Your task to perform on an android device: When is my next meeting? Image 0: 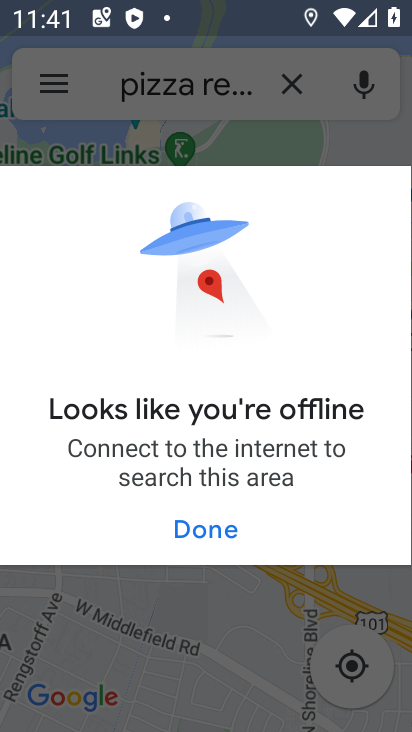
Step 0: press home button
Your task to perform on an android device: When is my next meeting? Image 1: 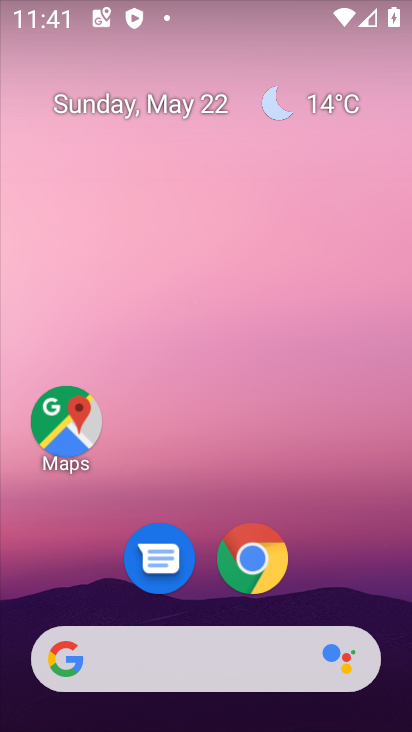
Step 1: drag from (362, 606) to (389, 21)
Your task to perform on an android device: When is my next meeting? Image 2: 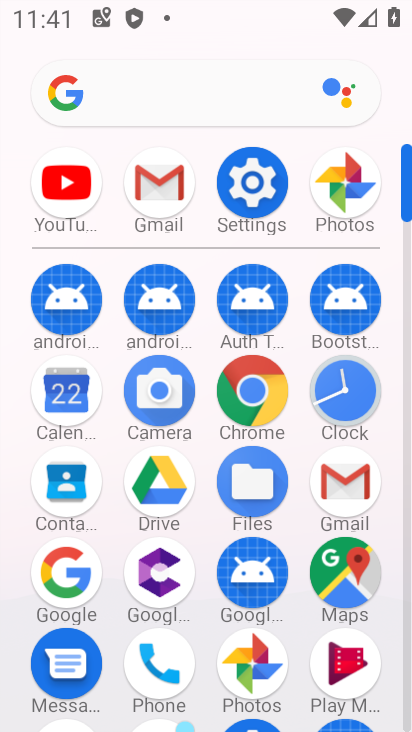
Step 2: click (59, 402)
Your task to perform on an android device: When is my next meeting? Image 3: 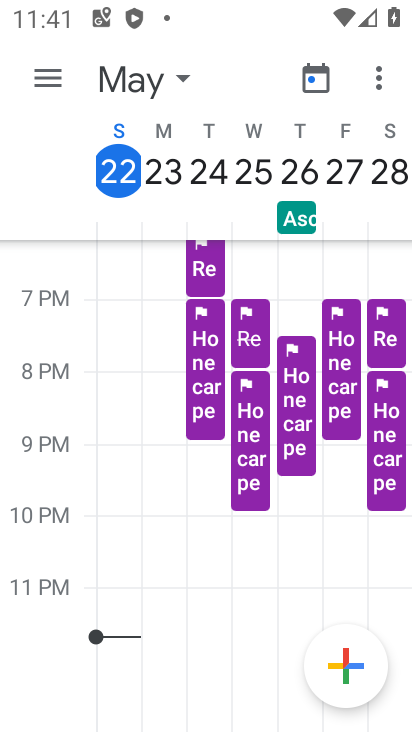
Step 3: click (183, 77)
Your task to perform on an android device: When is my next meeting? Image 4: 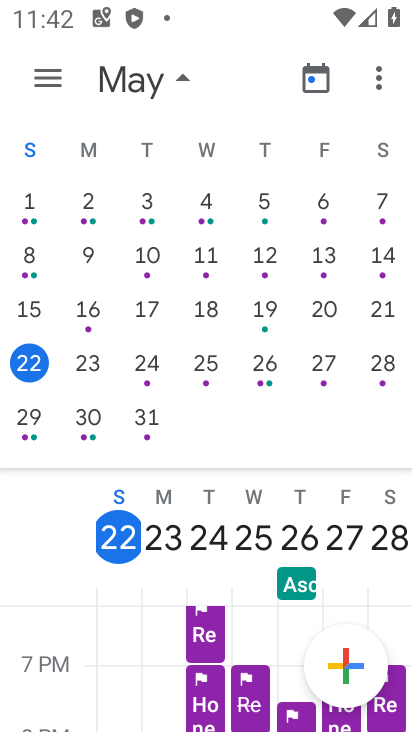
Step 4: click (55, 83)
Your task to perform on an android device: When is my next meeting? Image 5: 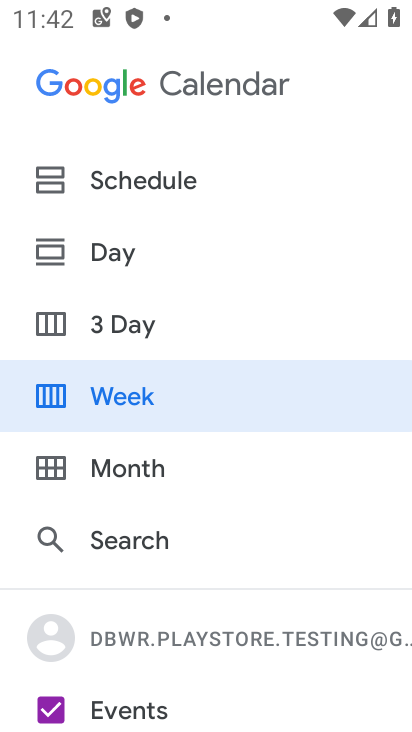
Step 5: click (76, 189)
Your task to perform on an android device: When is my next meeting? Image 6: 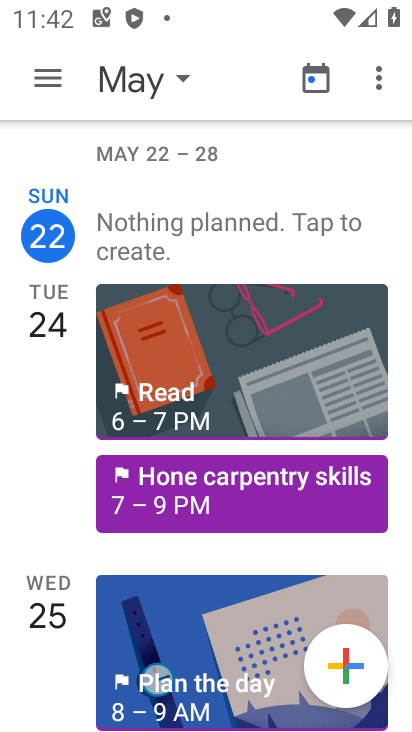
Step 6: click (202, 496)
Your task to perform on an android device: When is my next meeting? Image 7: 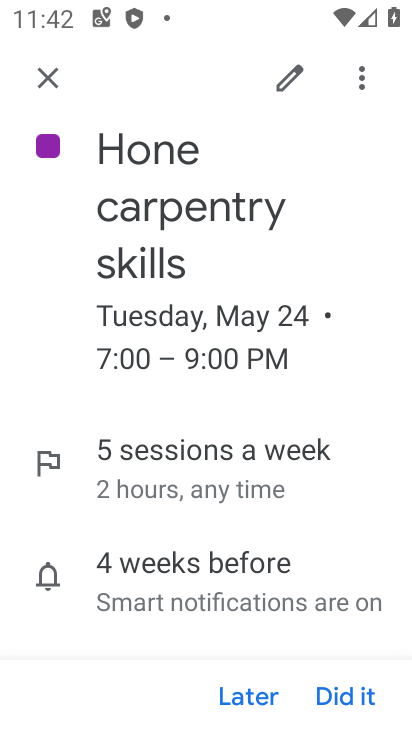
Step 7: task complete